Your task to perform on an android device: toggle notification dots Image 0: 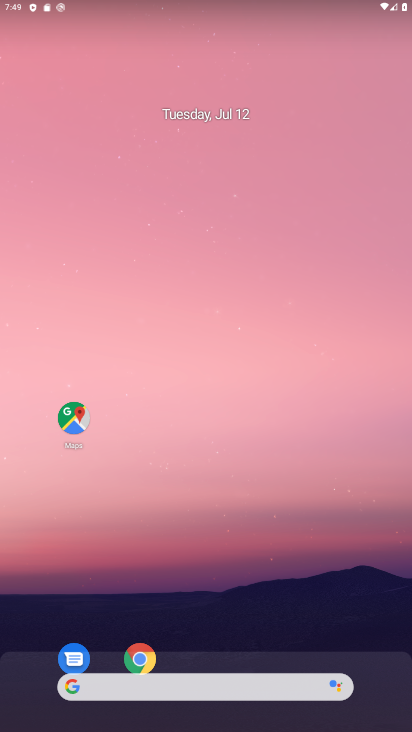
Step 0: drag from (386, 624) to (358, 113)
Your task to perform on an android device: toggle notification dots Image 1: 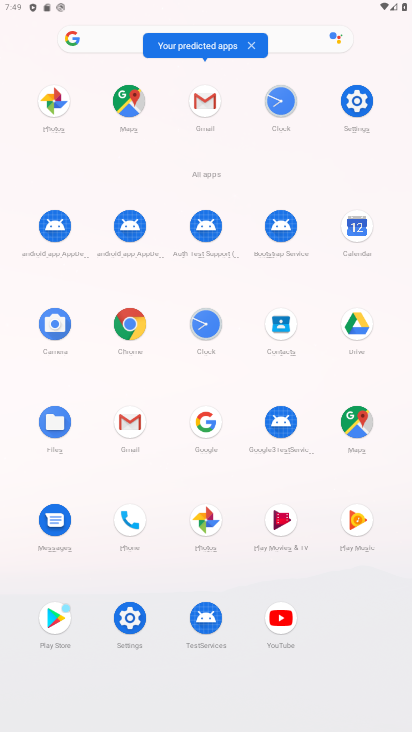
Step 1: click (363, 102)
Your task to perform on an android device: toggle notification dots Image 2: 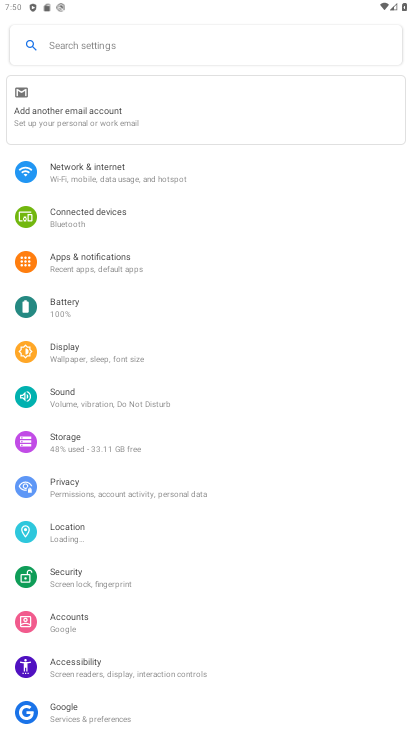
Step 2: drag from (297, 375) to (290, 251)
Your task to perform on an android device: toggle notification dots Image 3: 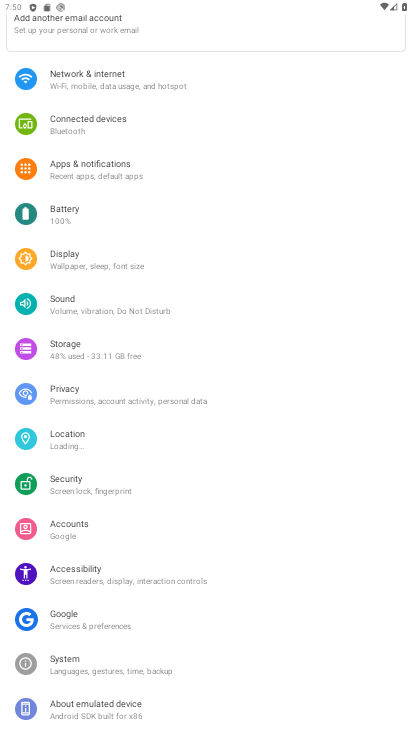
Step 3: drag from (312, 375) to (305, 198)
Your task to perform on an android device: toggle notification dots Image 4: 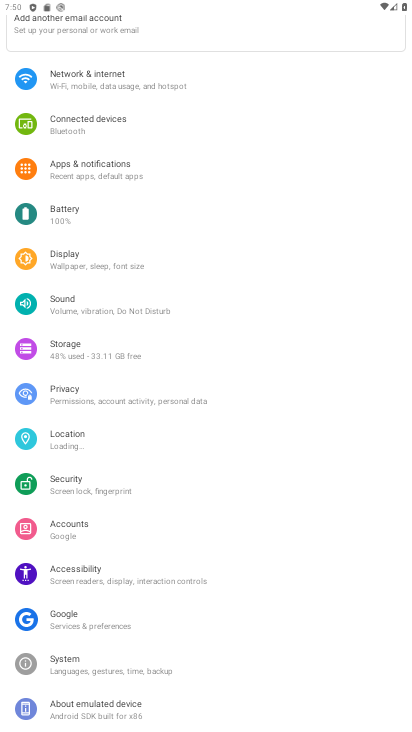
Step 4: click (170, 169)
Your task to perform on an android device: toggle notification dots Image 5: 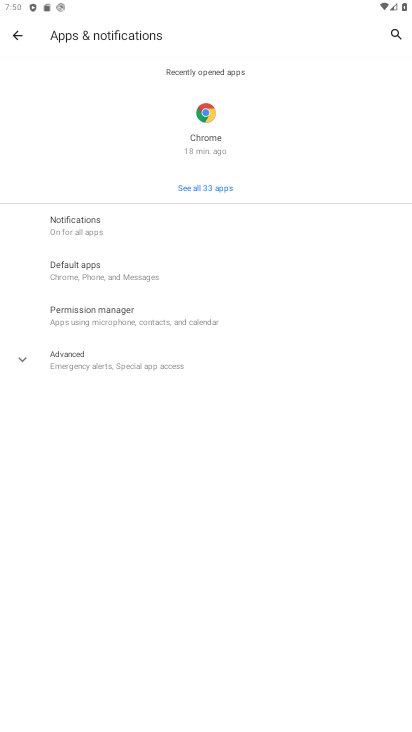
Step 5: click (92, 228)
Your task to perform on an android device: toggle notification dots Image 6: 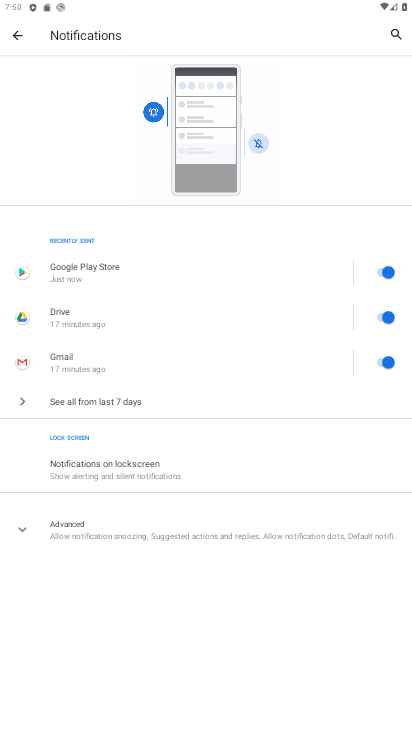
Step 6: click (239, 518)
Your task to perform on an android device: toggle notification dots Image 7: 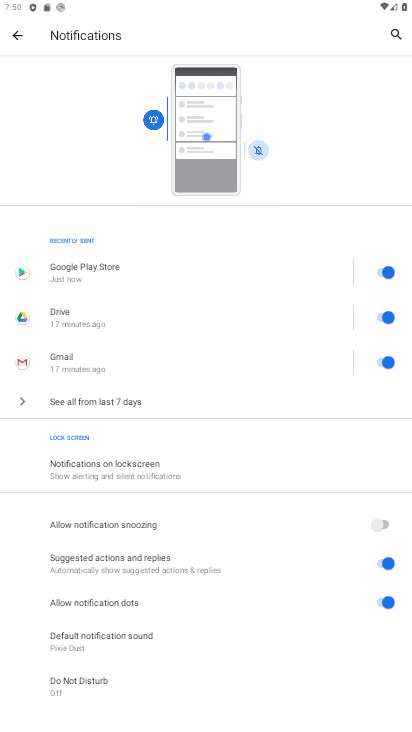
Step 7: drag from (287, 536) to (287, 430)
Your task to perform on an android device: toggle notification dots Image 8: 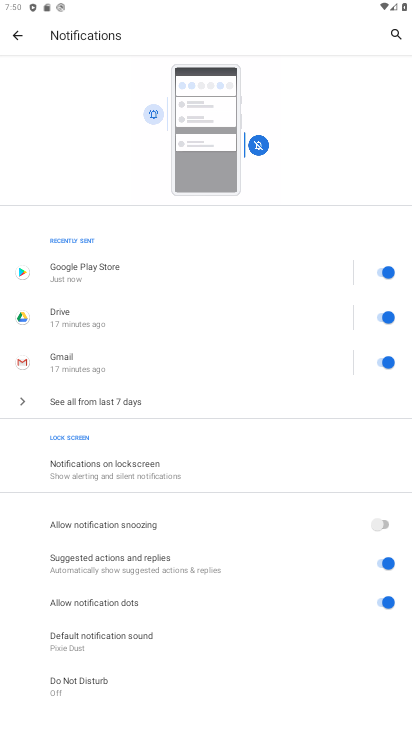
Step 8: click (392, 601)
Your task to perform on an android device: toggle notification dots Image 9: 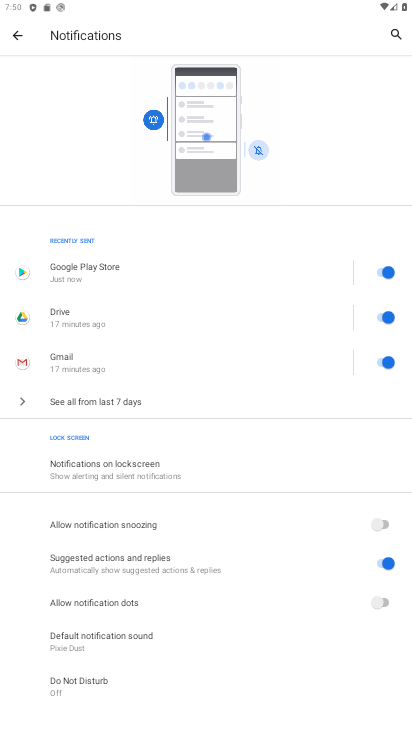
Step 9: task complete